Your task to perform on an android device: search for starred emails in the gmail app Image 0: 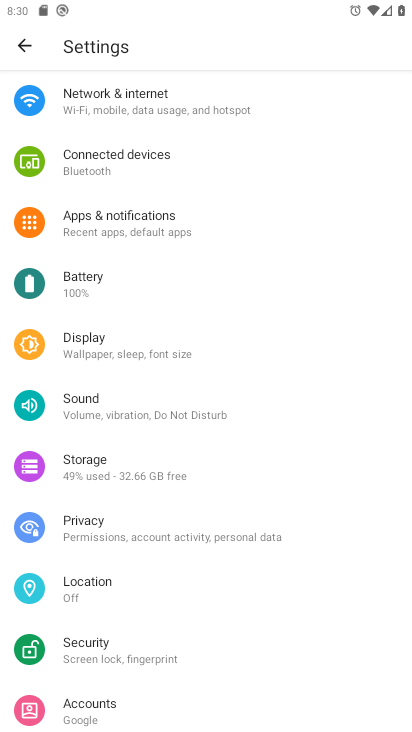
Step 0: press home button
Your task to perform on an android device: search for starred emails in the gmail app Image 1: 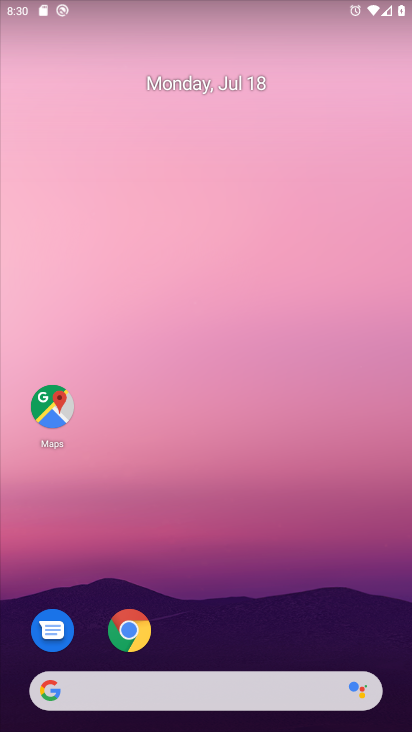
Step 1: drag from (209, 502) to (187, 178)
Your task to perform on an android device: search for starred emails in the gmail app Image 2: 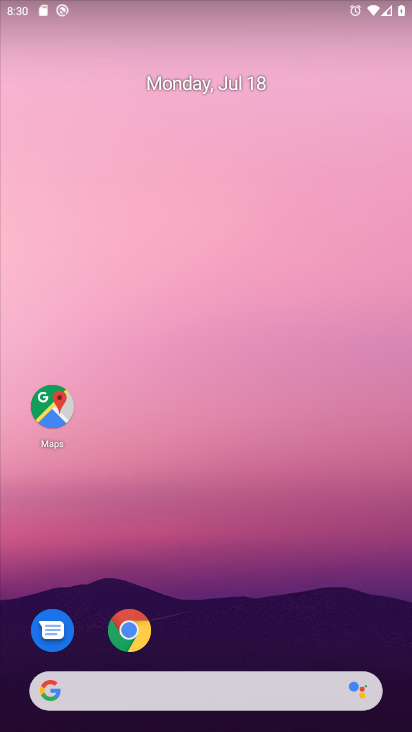
Step 2: drag from (203, 650) to (250, 147)
Your task to perform on an android device: search for starred emails in the gmail app Image 3: 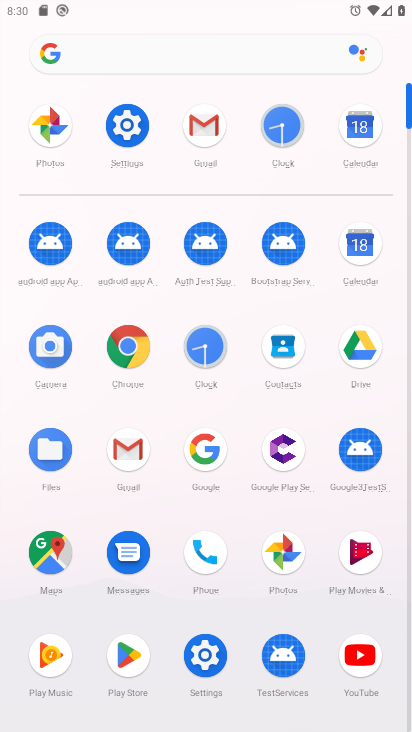
Step 3: click (216, 137)
Your task to perform on an android device: search for starred emails in the gmail app Image 4: 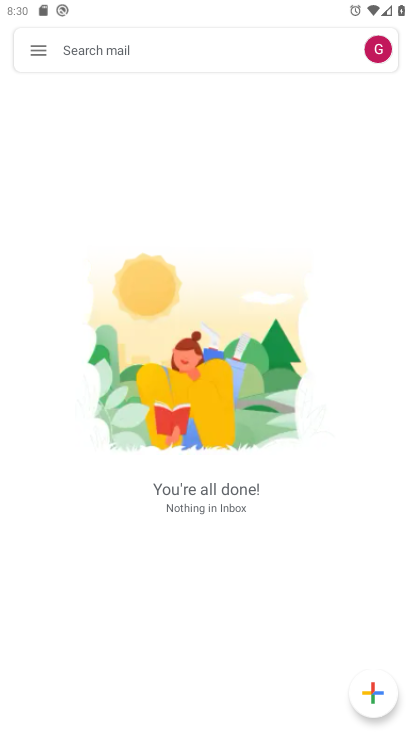
Step 4: click (33, 52)
Your task to perform on an android device: search for starred emails in the gmail app Image 5: 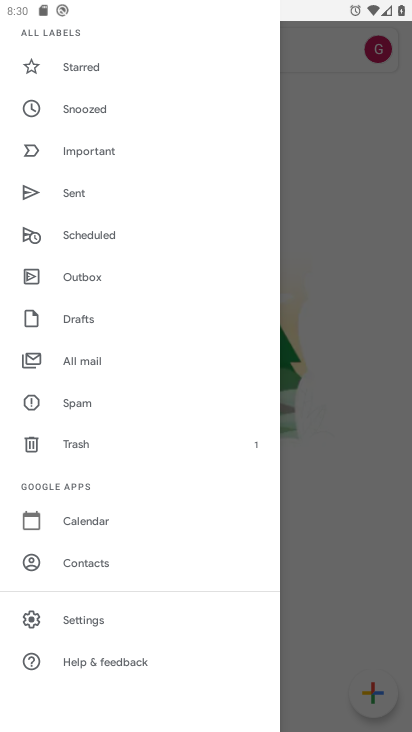
Step 5: click (93, 68)
Your task to perform on an android device: search for starred emails in the gmail app Image 6: 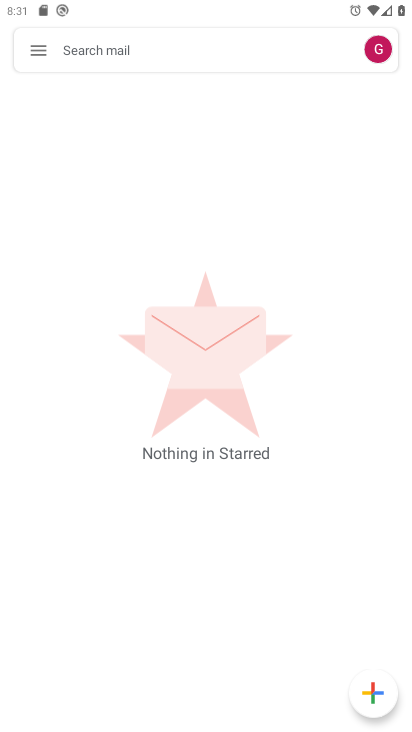
Step 6: press home button
Your task to perform on an android device: search for starred emails in the gmail app Image 7: 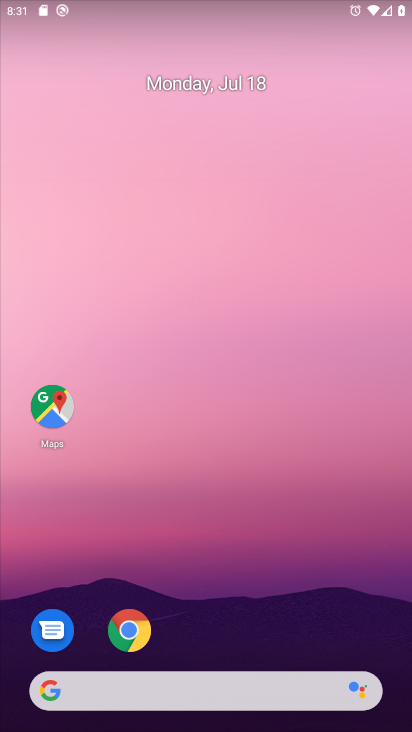
Step 7: drag from (210, 635) to (218, 36)
Your task to perform on an android device: search for starred emails in the gmail app Image 8: 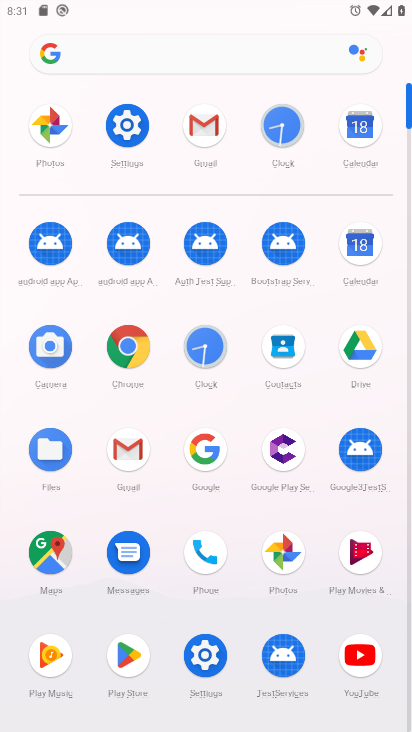
Step 8: click (213, 117)
Your task to perform on an android device: search for starred emails in the gmail app Image 9: 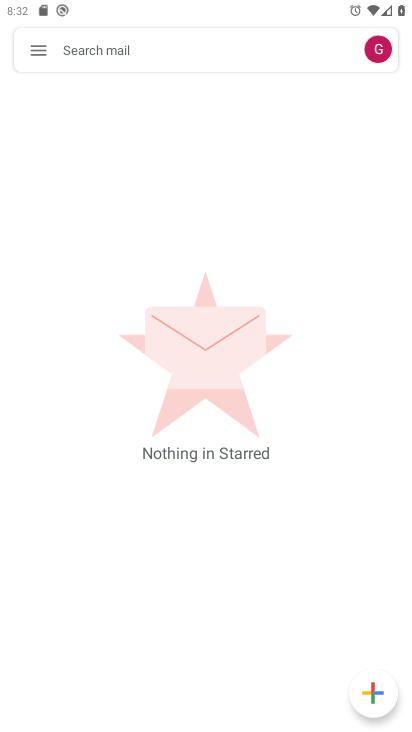
Step 9: click (34, 43)
Your task to perform on an android device: search for starred emails in the gmail app Image 10: 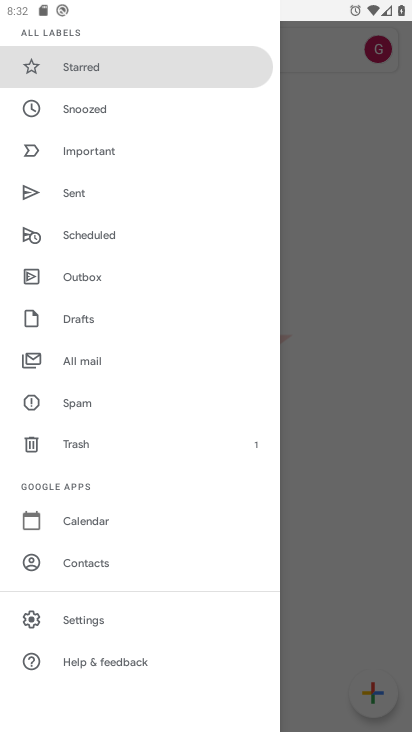
Step 10: click (149, 78)
Your task to perform on an android device: search for starred emails in the gmail app Image 11: 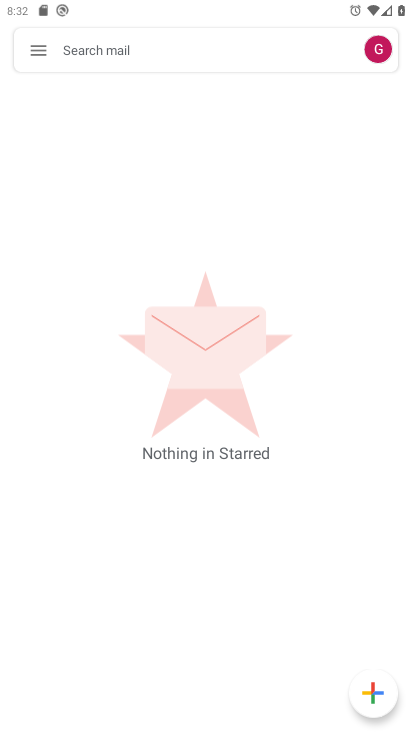
Step 11: task complete